Your task to perform on an android device: What's on my calendar tomorrow? Image 0: 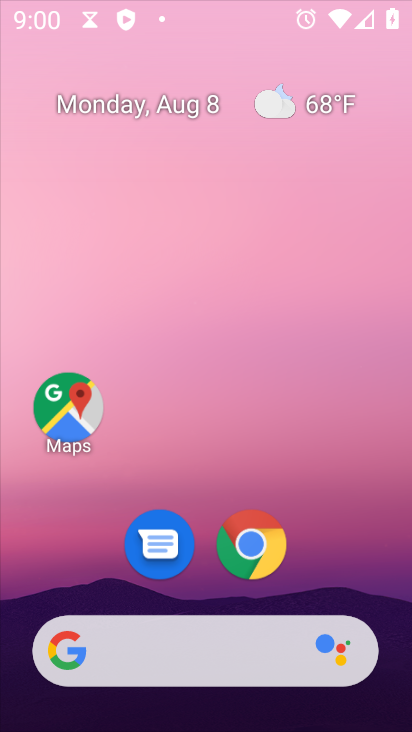
Step 0: press home button
Your task to perform on an android device: What's on my calendar tomorrow? Image 1: 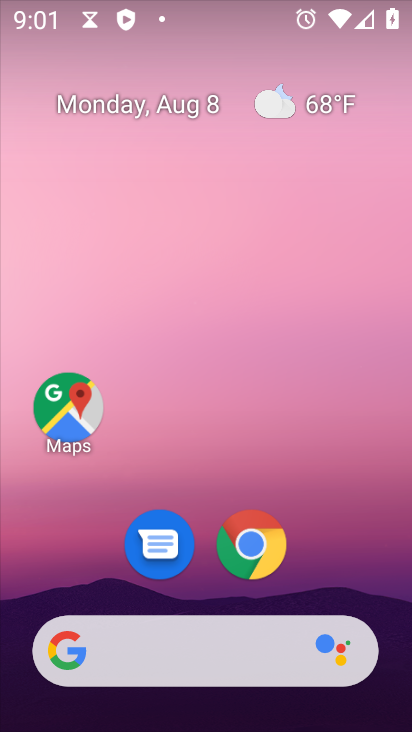
Step 1: drag from (314, 572) to (318, 30)
Your task to perform on an android device: What's on my calendar tomorrow? Image 2: 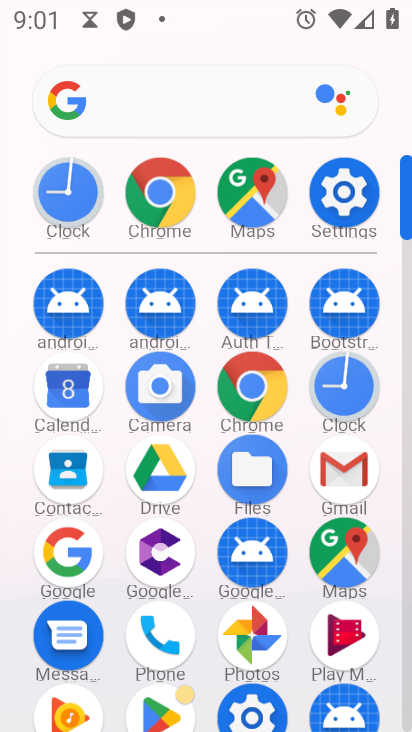
Step 2: click (66, 385)
Your task to perform on an android device: What's on my calendar tomorrow? Image 3: 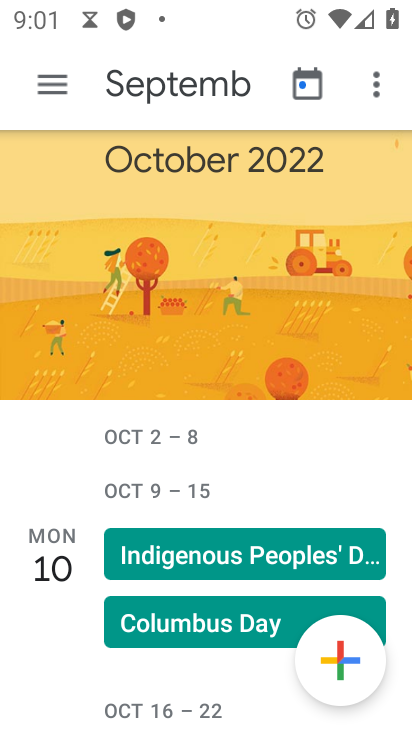
Step 3: click (54, 87)
Your task to perform on an android device: What's on my calendar tomorrow? Image 4: 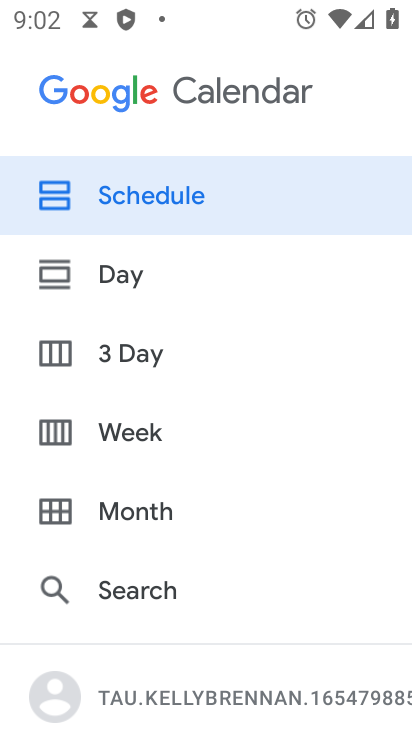
Step 4: click (100, 273)
Your task to perform on an android device: What's on my calendar tomorrow? Image 5: 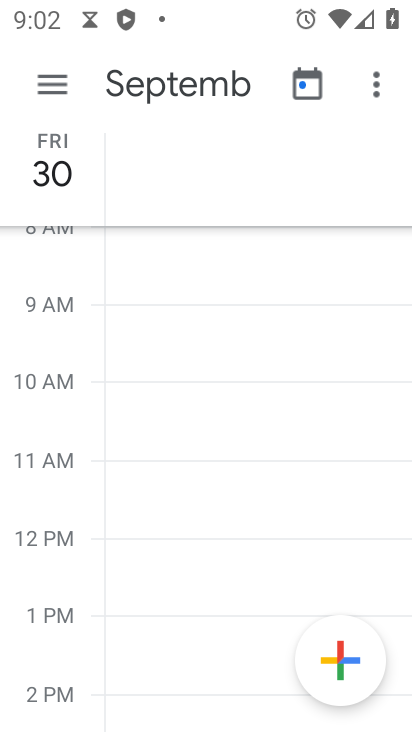
Step 5: click (132, 91)
Your task to perform on an android device: What's on my calendar tomorrow? Image 6: 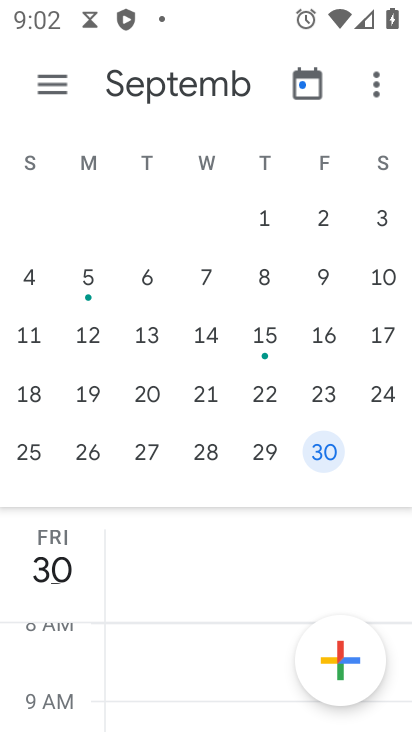
Step 6: drag from (43, 379) to (406, 413)
Your task to perform on an android device: What's on my calendar tomorrow? Image 7: 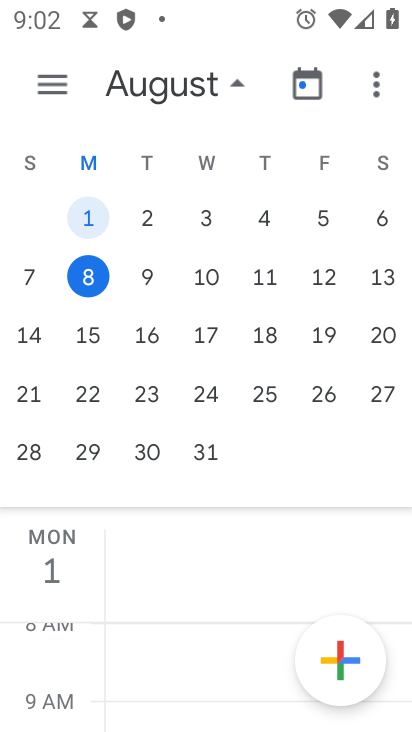
Step 7: click (146, 274)
Your task to perform on an android device: What's on my calendar tomorrow? Image 8: 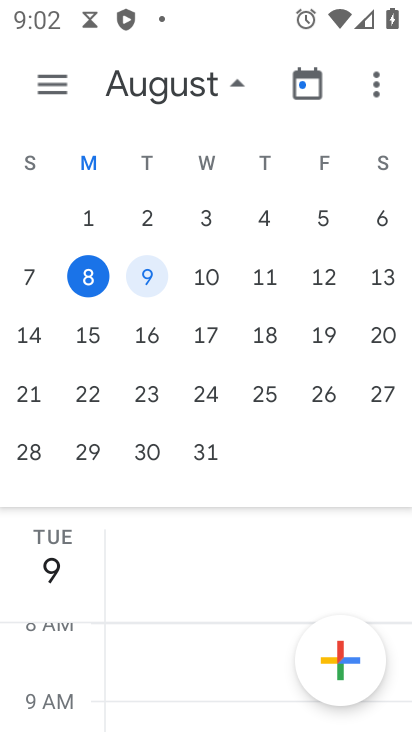
Step 8: click (241, 80)
Your task to perform on an android device: What's on my calendar tomorrow? Image 9: 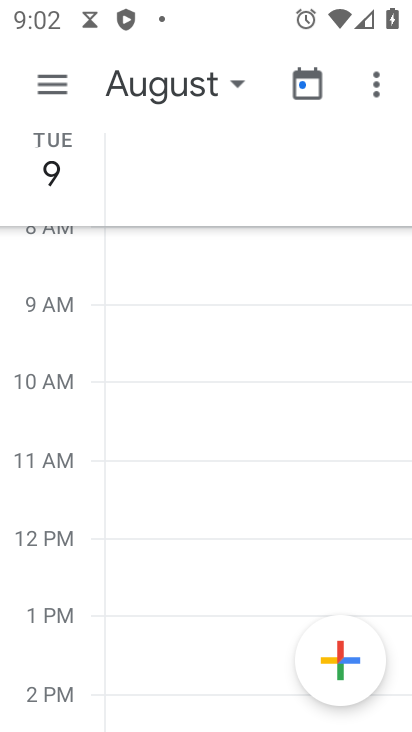
Step 9: task complete